Your task to perform on an android device: Open the stopwatch Image 0: 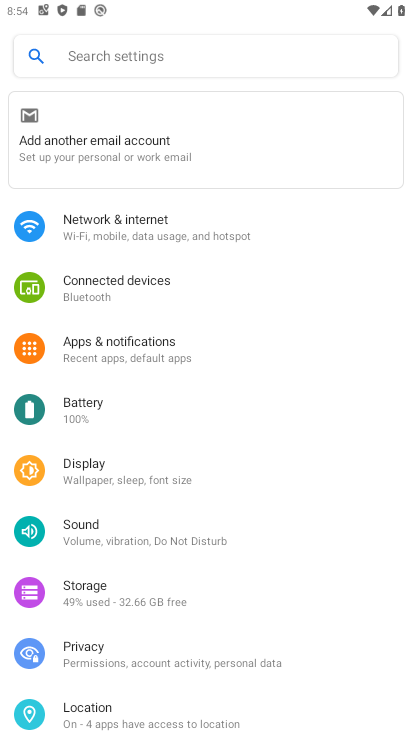
Step 0: press home button
Your task to perform on an android device: Open the stopwatch Image 1: 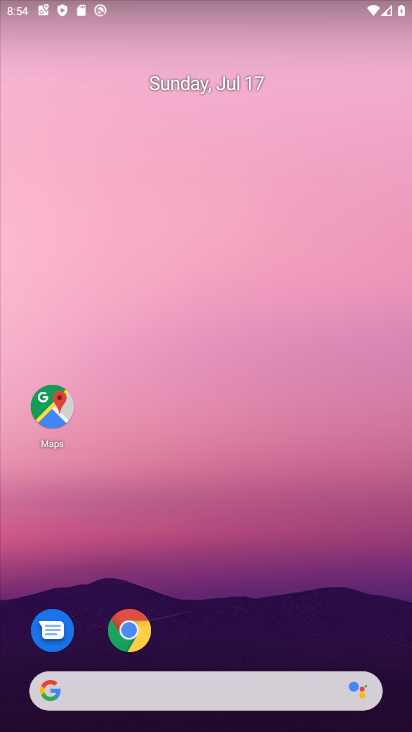
Step 1: drag from (310, 615) to (367, 58)
Your task to perform on an android device: Open the stopwatch Image 2: 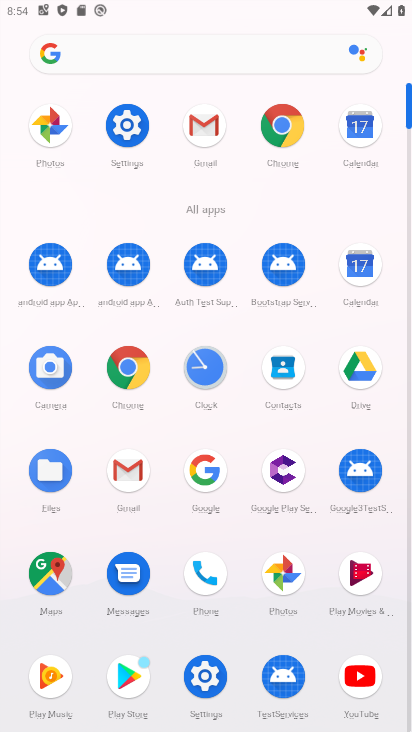
Step 2: click (209, 369)
Your task to perform on an android device: Open the stopwatch Image 3: 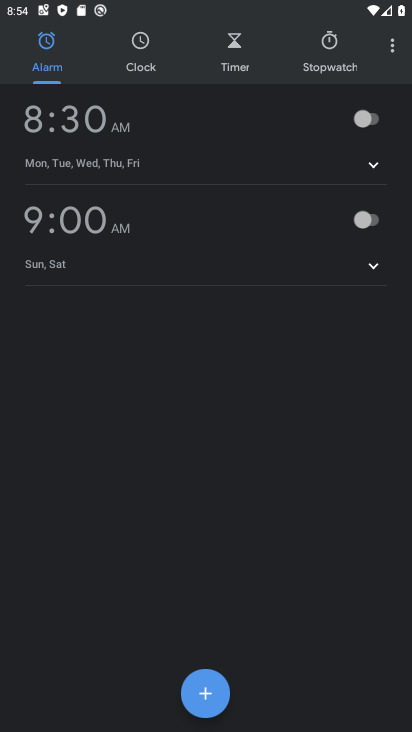
Step 3: click (321, 60)
Your task to perform on an android device: Open the stopwatch Image 4: 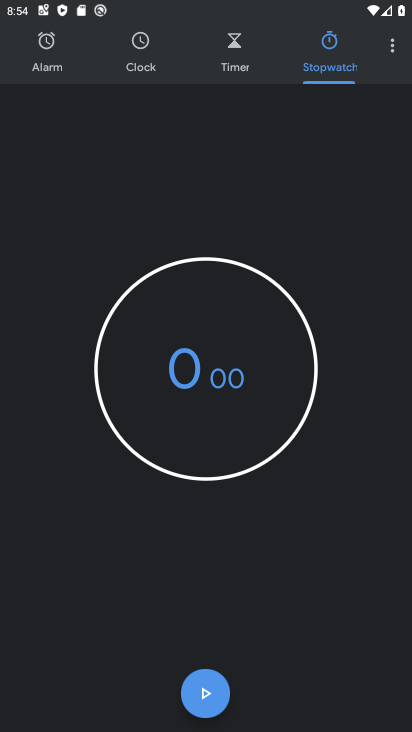
Step 4: task complete